Your task to perform on an android device: Show me popular games on the Play Store Image 0: 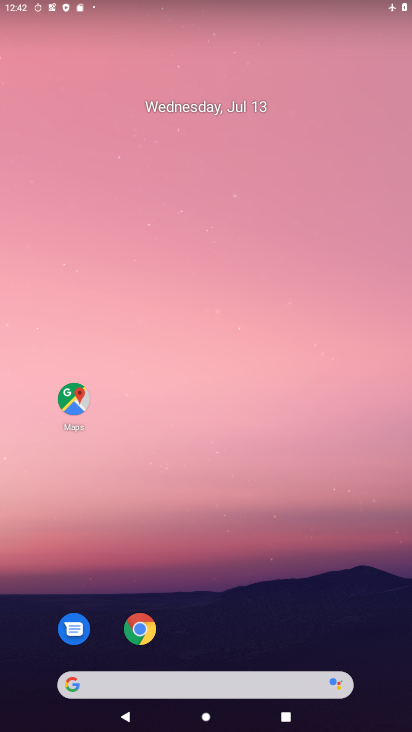
Step 0: drag from (214, 637) to (168, 264)
Your task to perform on an android device: Show me popular games on the Play Store Image 1: 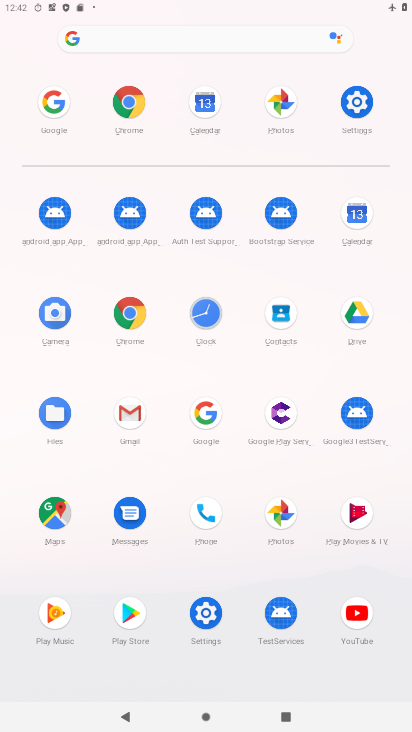
Step 1: click (118, 630)
Your task to perform on an android device: Show me popular games on the Play Store Image 2: 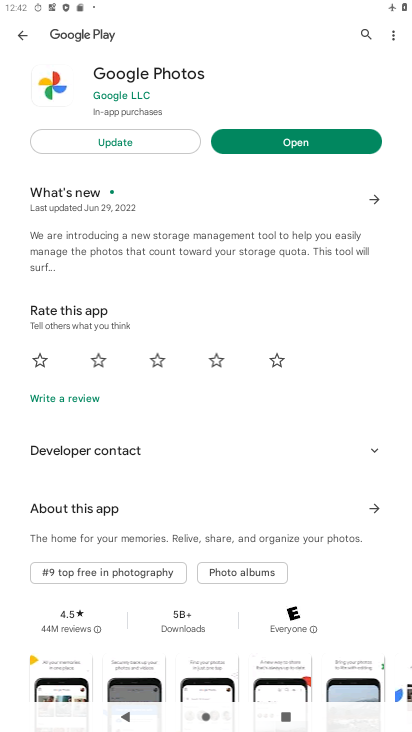
Step 2: click (26, 34)
Your task to perform on an android device: Show me popular games on the Play Store Image 3: 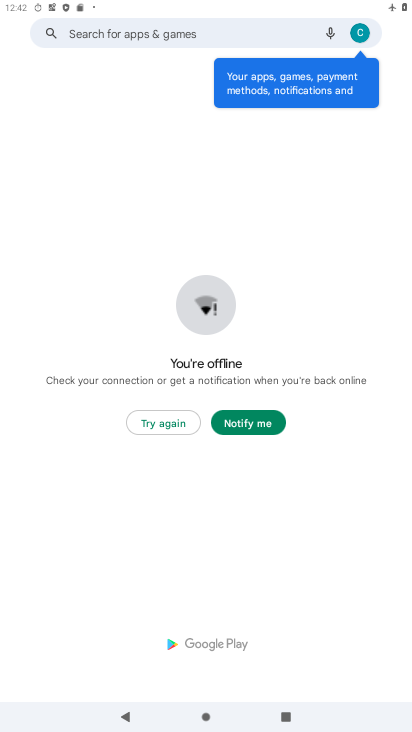
Step 3: press back button
Your task to perform on an android device: Show me popular games on the Play Store Image 4: 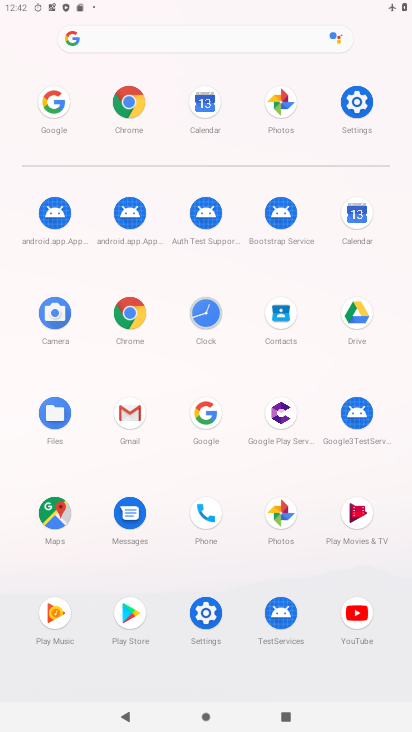
Step 4: click (130, 604)
Your task to perform on an android device: Show me popular games on the Play Store Image 5: 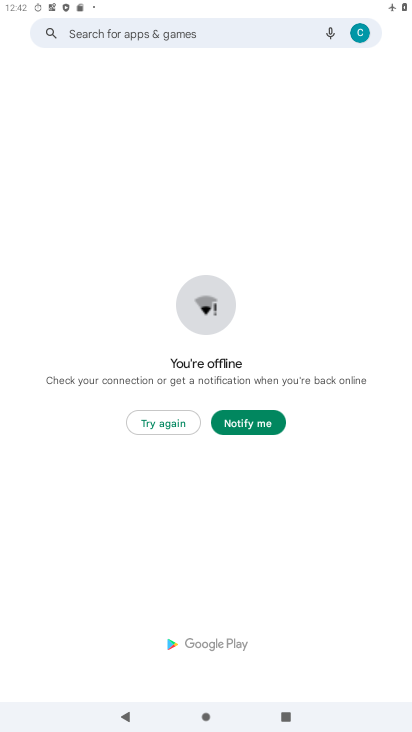
Step 5: task complete